Your task to perform on an android device: snooze an email in the gmail app Image 0: 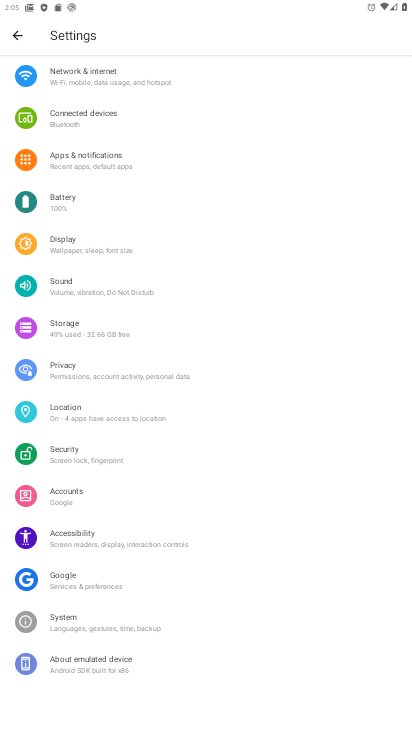
Step 0: press home button
Your task to perform on an android device: snooze an email in the gmail app Image 1: 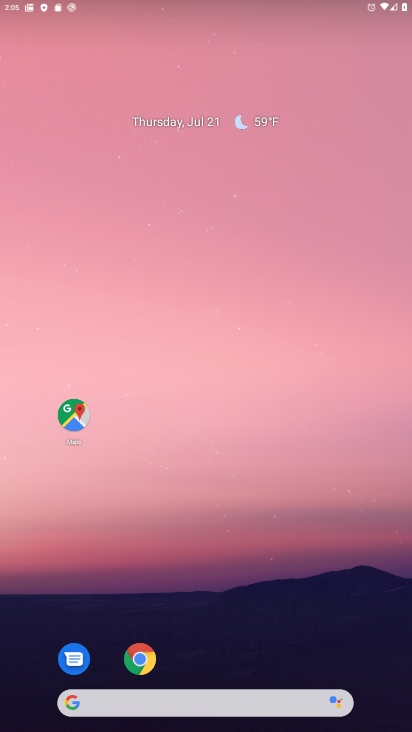
Step 1: drag from (193, 596) to (267, 66)
Your task to perform on an android device: snooze an email in the gmail app Image 2: 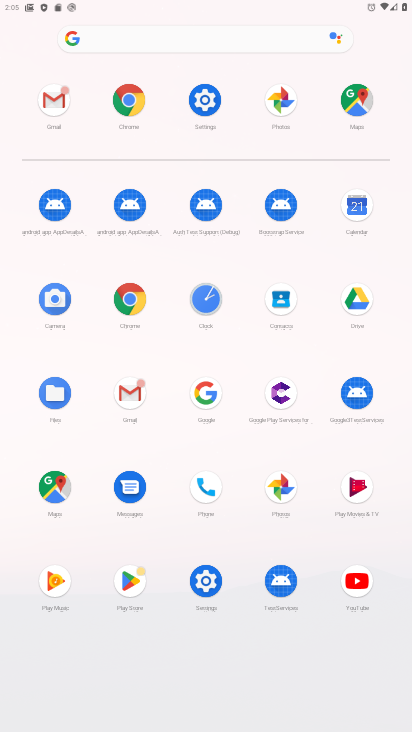
Step 2: click (52, 88)
Your task to perform on an android device: snooze an email in the gmail app Image 3: 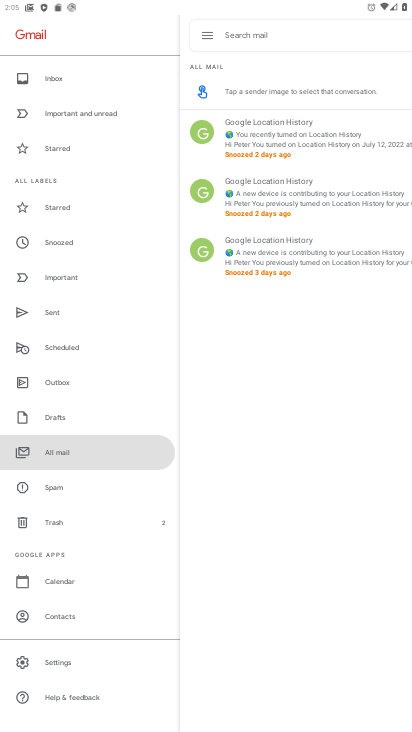
Step 3: click (294, 265)
Your task to perform on an android device: snooze an email in the gmail app Image 4: 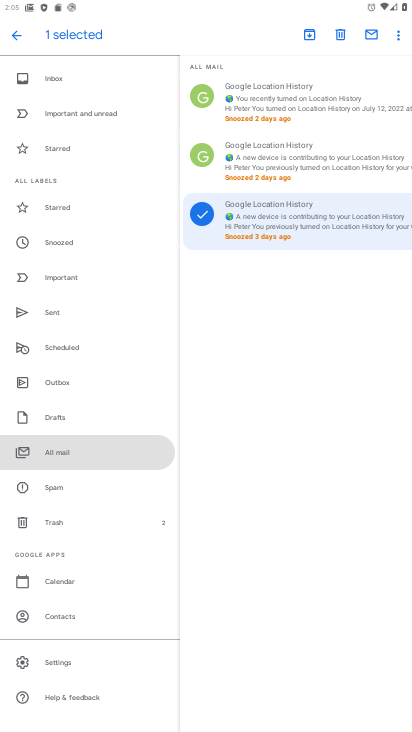
Step 4: click (404, 30)
Your task to perform on an android device: snooze an email in the gmail app Image 5: 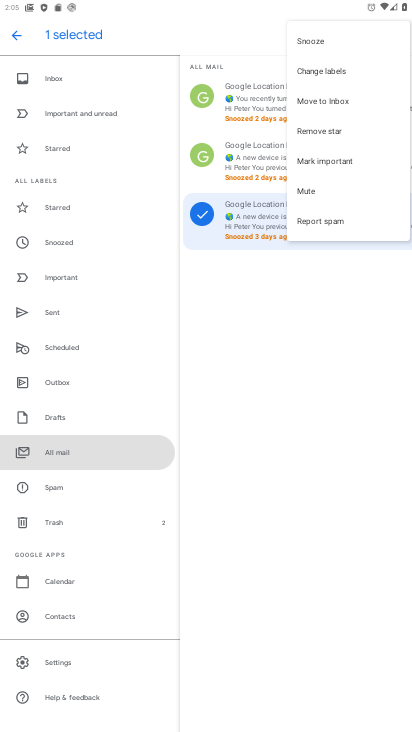
Step 5: click (313, 41)
Your task to perform on an android device: snooze an email in the gmail app Image 6: 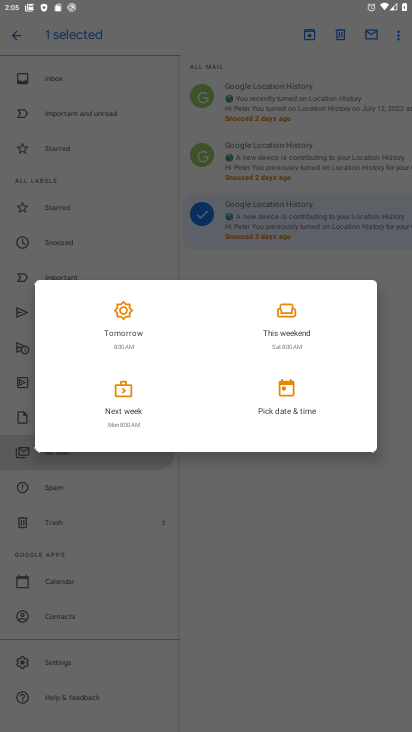
Step 6: click (123, 321)
Your task to perform on an android device: snooze an email in the gmail app Image 7: 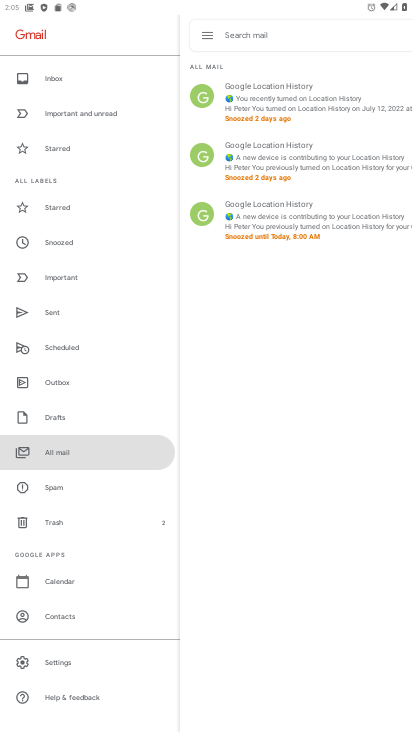
Step 7: task complete